Your task to perform on an android device: add a contact Image 0: 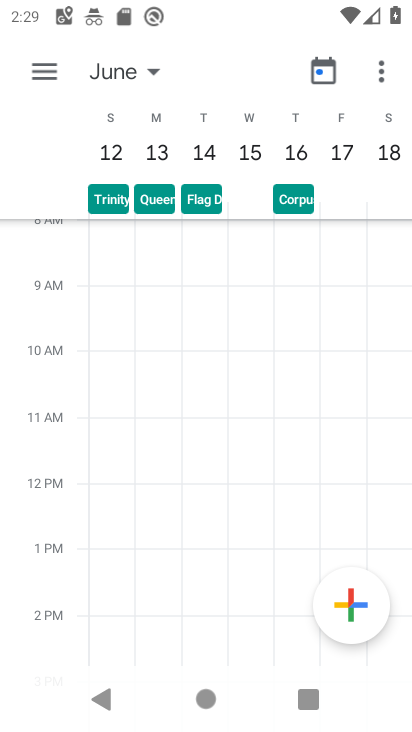
Step 0: press home button
Your task to perform on an android device: add a contact Image 1: 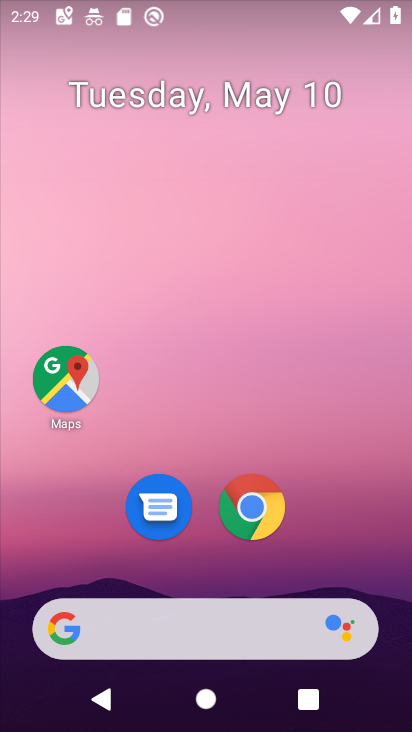
Step 1: drag from (213, 567) to (266, 271)
Your task to perform on an android device: add a contact Image 2: 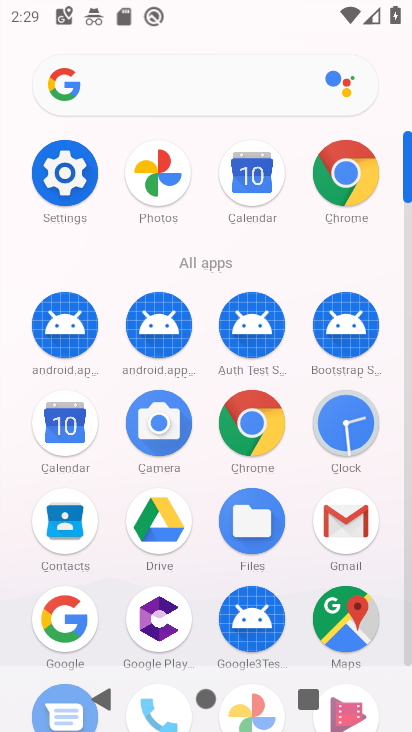
Step 2: click (70, 527)
Your task to perform on an android device: add a contact Image 3: 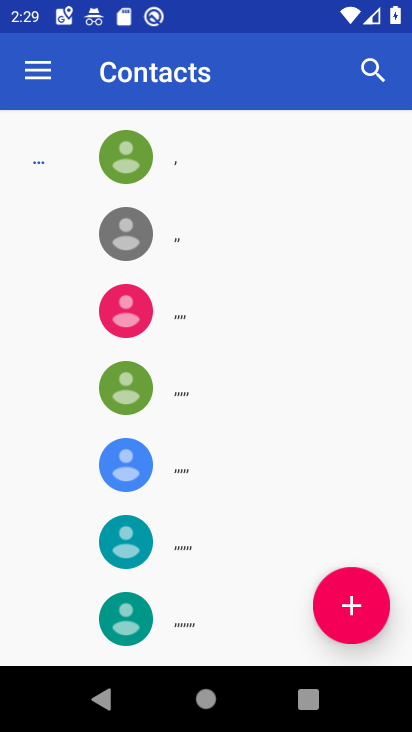
Step 3: click (356, 605)
Your task to perform on an android device: add a contact Image 4: 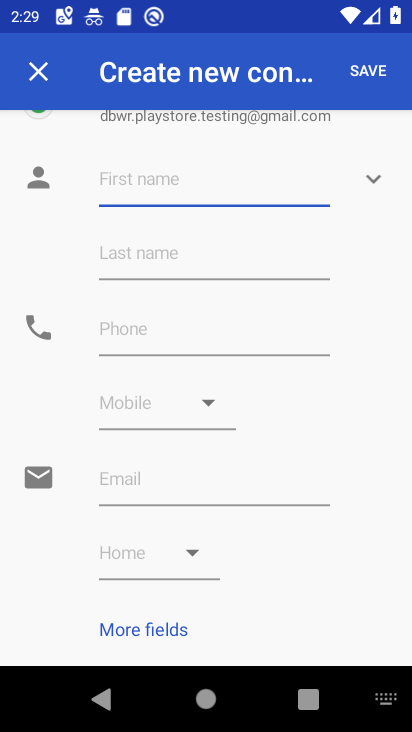
Step 4: type "hhb"
Your task to perform on an android device: add a contact Image 5: 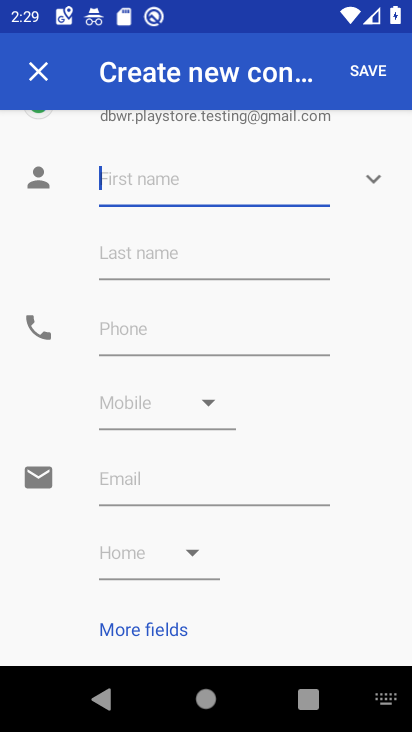
Step 5: click (207, 248)
Your task to perform on an android device: add a contact Image 6: 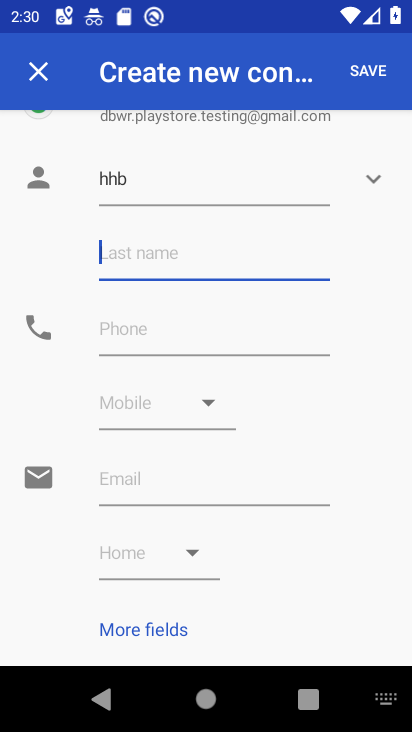
Step 6: type "bhhj"
Your task to perform on an android device: add a contact Image 7: 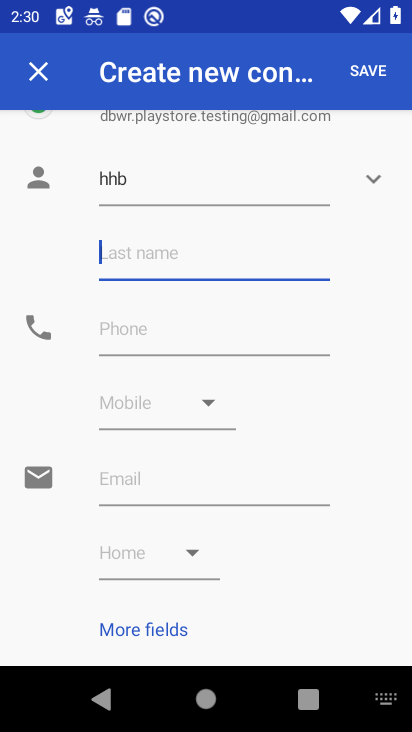
Step 7: click (234, 339)
Your task to perform on an android device: add a contact Image 8: 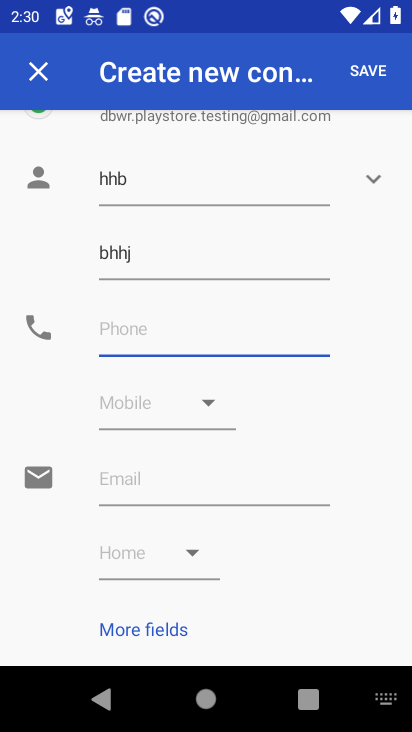
Step 8: type "57789"
Your task to perform on an android device: add a contact Image 9: 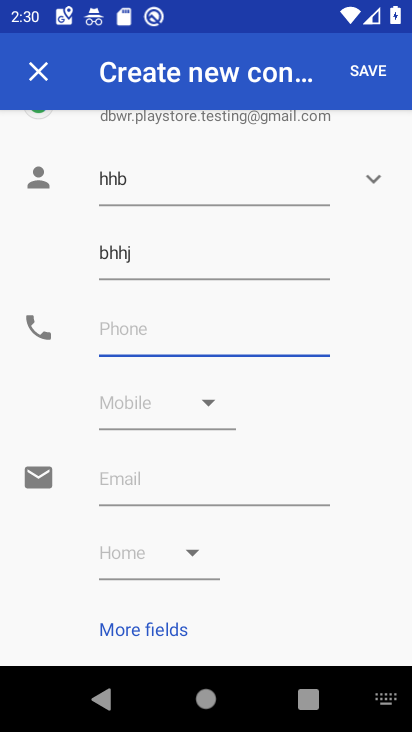
Step 9: click (122, 481)
Your task to perform on an android device: add a contact Image 10: 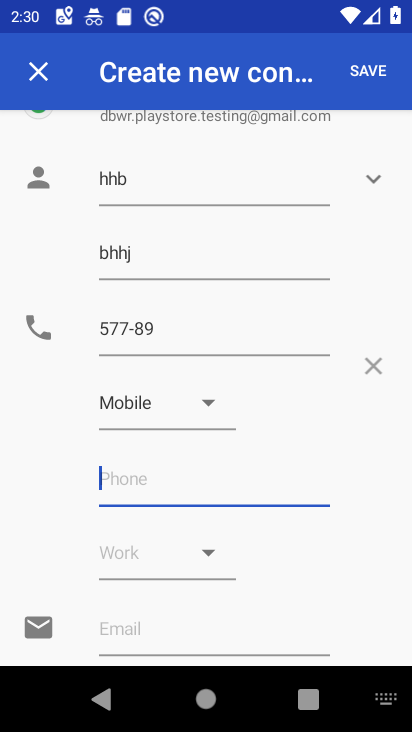
Step 10: click (376, 80)
Your task to perform on an android device: add a contact Image 11: 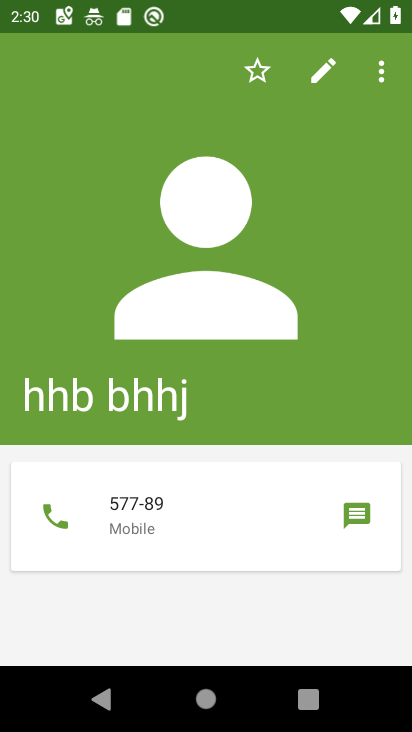
Step 11: task complete